Your task to perform on an android device: Add sony triple a to the cart on target, then select checkout. Image 0: 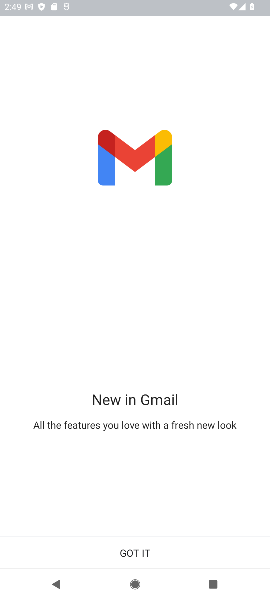
Step 0: press home button
Your task to perform on an android device: Add sony triple a to the cart on target, then select checkout. Image 1: 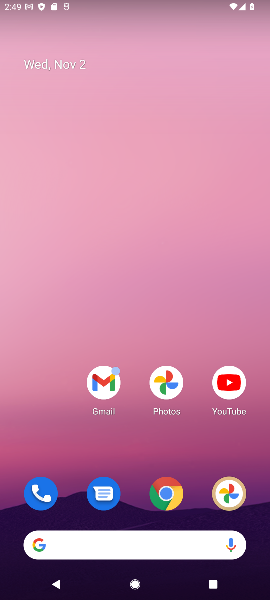
Step 1: click (165, 494)
Your task to perform on an android device: Add sony triple a to the cart on target, then select checkout. Image 2: 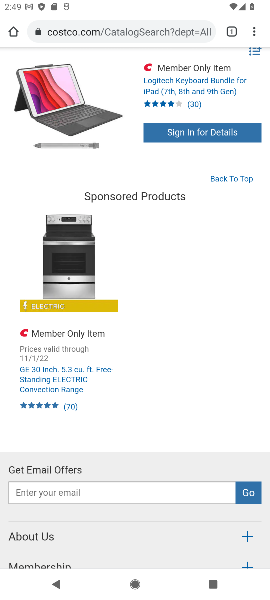
Step 2: click (129, 24)
Your task to perform on an android device: Add sony triple a to the cart on target, then select checkout. Image 3: 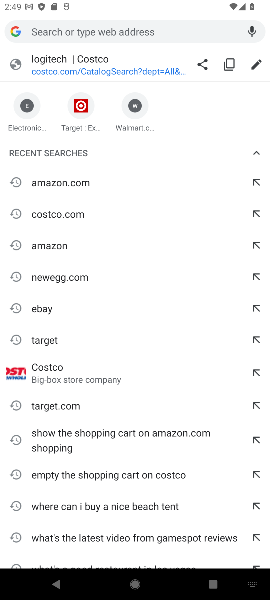
Step 3: click (76, 111)
Your task to perform on an android device: Add sony triple a to the cart on target, then select checkout. Image 4: 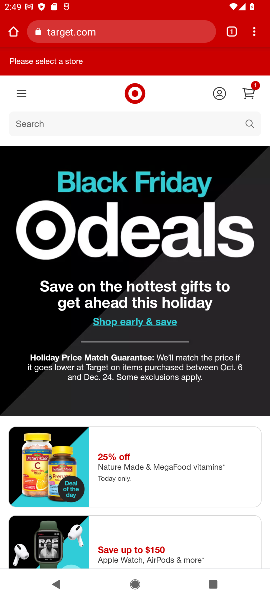
Step 4: click (170, 124)
Your task to perform on an android device: Add sony triple a to the cart on target, then select checkout. Image 5: 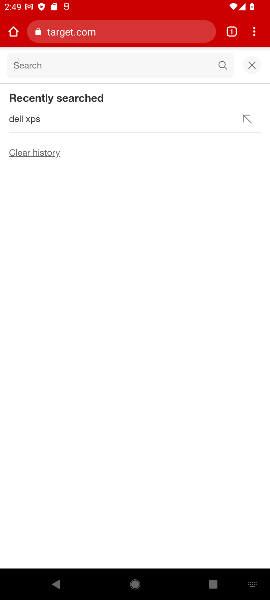
Step 5: type "sony triple a"
Your task to perform on an android device: Add sony triple a to the cart on target, then select checkout. Image 6: 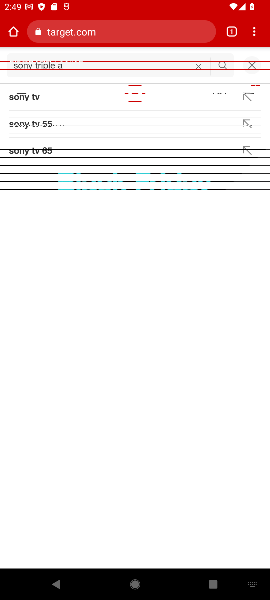
Step 6: click (228, 258)
Your task to perform on an android device: Add sony triple a to the cart on target, then select checkout. Image 7: 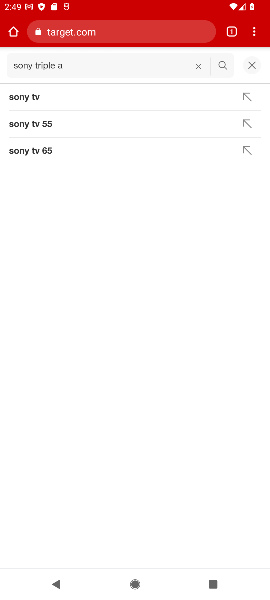
Step 7: click (249, 241)
Your task to perform on an android device: Add sony triple a to the cart on target, then select checkout. Image 8: 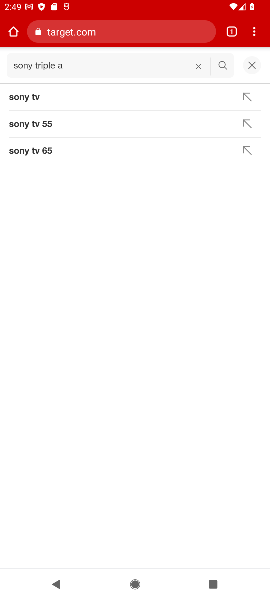
Step 8: click (127, 68)
Your task to perform on an android device: Add sony triple a to the cart on target, then select checkout. Image 9: 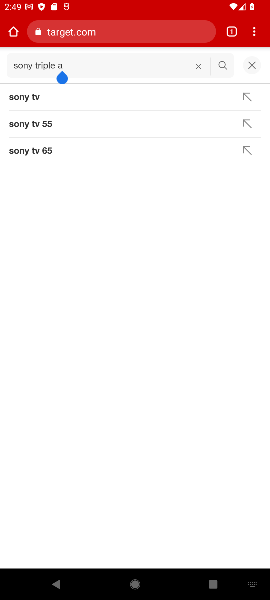
Step 9: click (251, 201)
Your task to perform on an android device: Add sony triple a to the cart on target, then select checkout. Image 10: 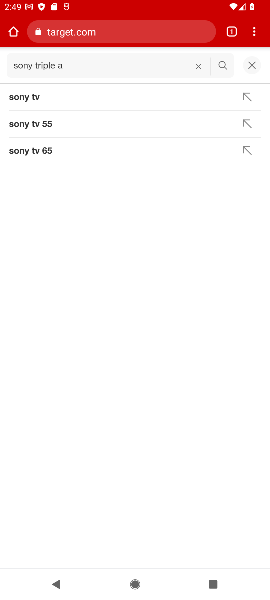
Step 10: task complete